Your task to perform on an android device: Search for Mexican restaurants on Maps Image 0: 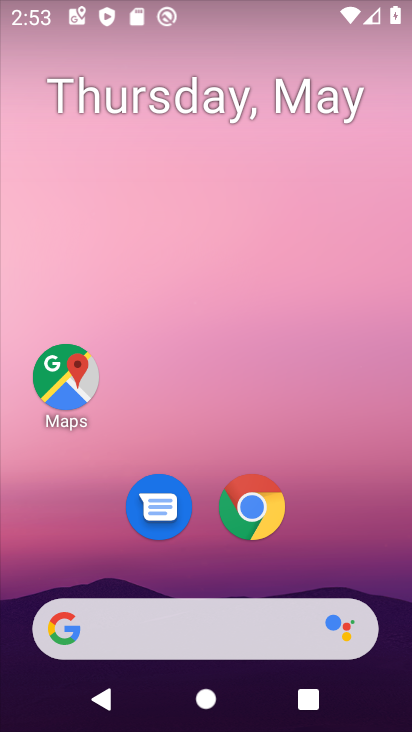
Step 0: click (69, 370)
Your task to perform on an android device: Search for Mexican restaurants on Maps Image 1: 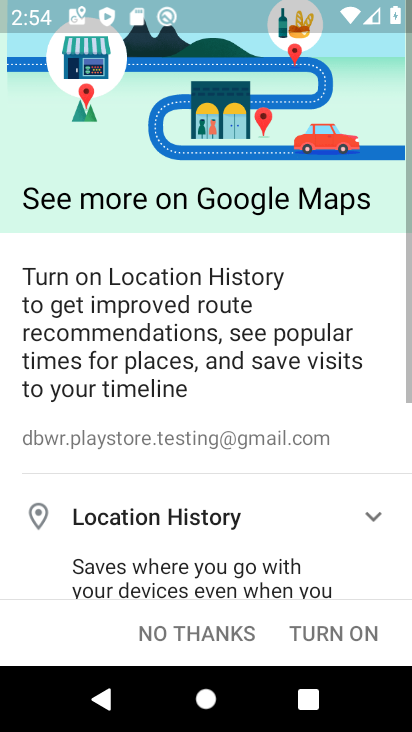
Step 1: drag from (260, 702) to (353, 711)
Your task to perform on an android device: Search for Mexican restaurants on Maps Image 2: 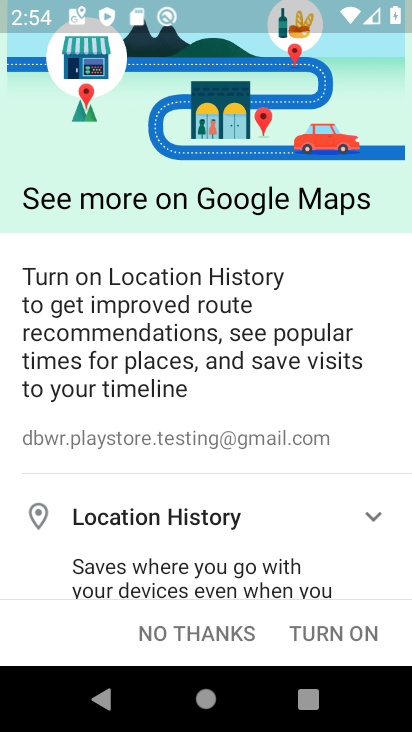
Step 2: press back button
Your task to perform on an android device: Search for Mexican restaurants on Maps Image 3: 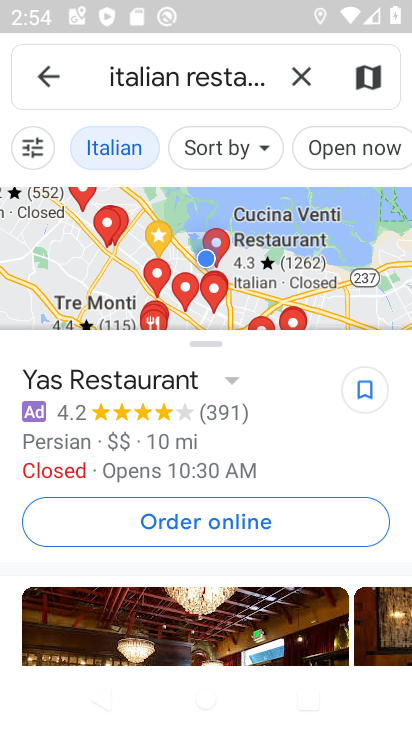
Step 3: click (305, 68)
Your task to perform on an android device: Search for Mexican restaurants on Maps Image 4: 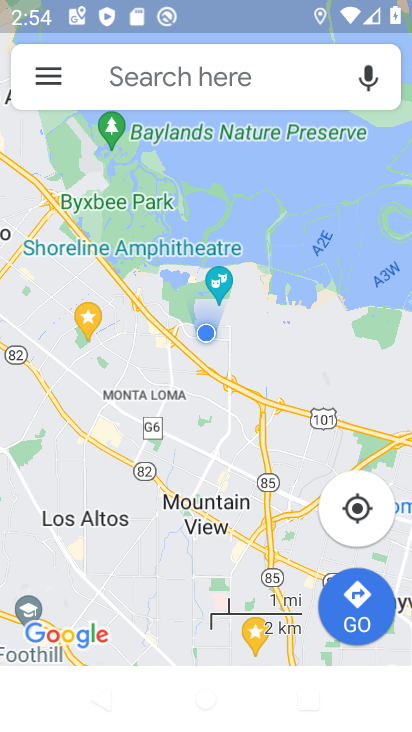
Step 4: click (167, 93)
Your task to perform on an android device: Search for Mexican restaurants on Maps Image 5: 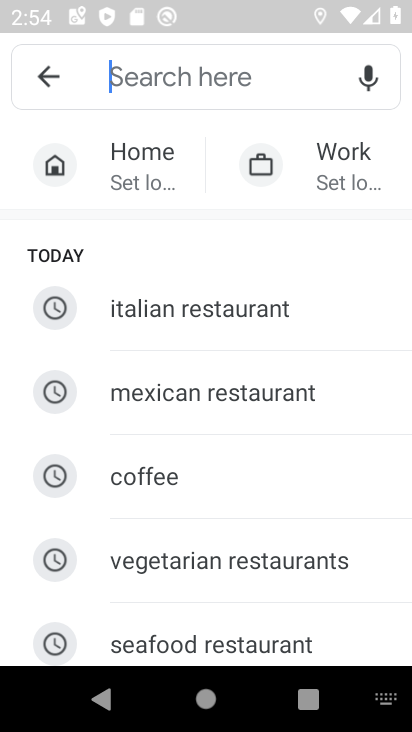
Step 5: click (264, 398)
Your task to perform on an android device: Search for Mexican restaurants on Maps Image 6: 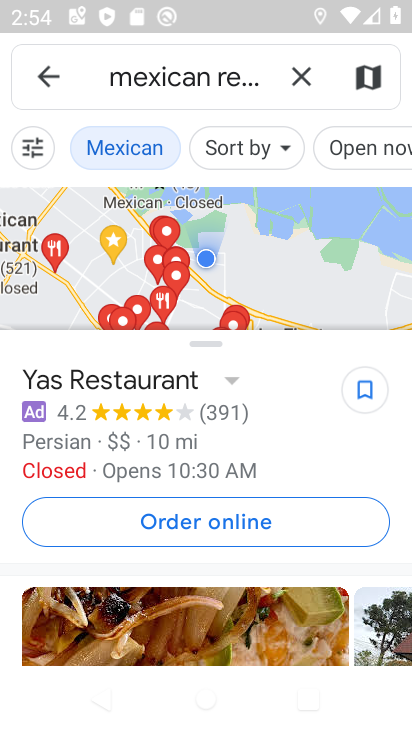
Step 6: task complete